Your task to perform on an android device: Go to Android settings Image 0: 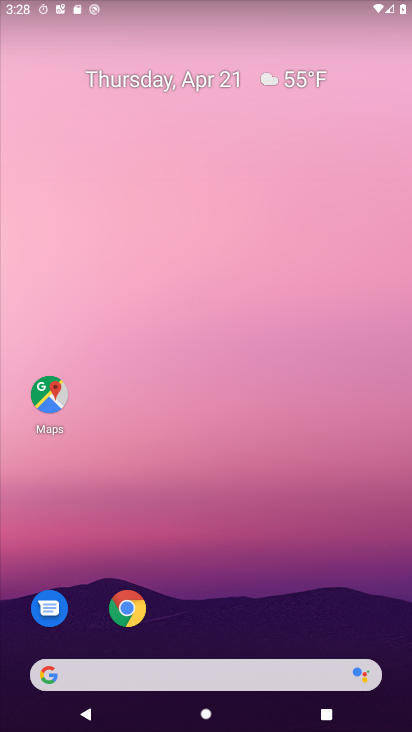
Step 0: drag from (310, 584) to (243, 21)
Your task to perform on an android device: Go to Android settings Image 1: 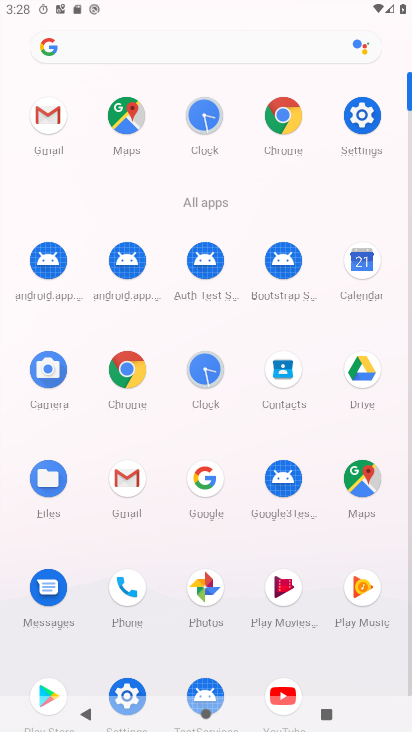
Step 1: click (135, 695)
Your task to perform on an android device: Go to Android settings Image 2: 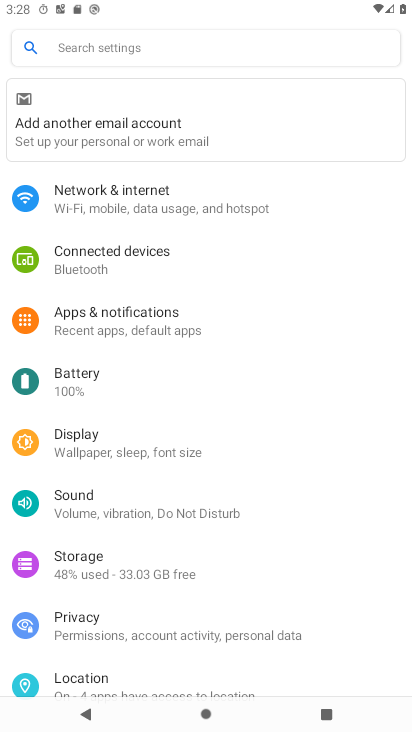
Step 2: drag from (198, 421) to (215, 121)
Your task to perform on an android device: Go to Android settings Image 3: 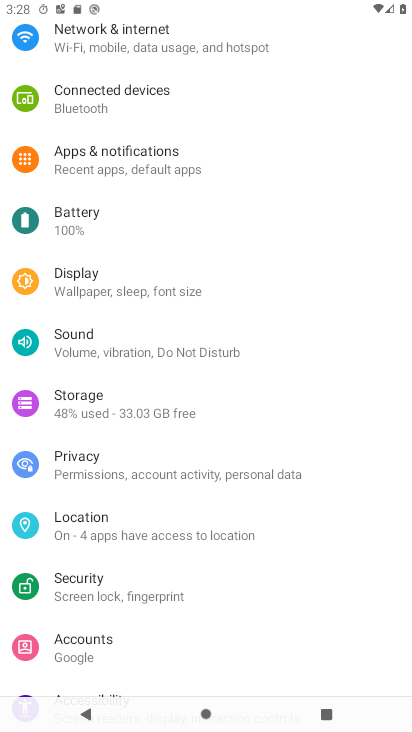
Step 3: drag from (216, 595) to (203, 175)
Your task to perform on an android device: Go to Android settings Image 4: 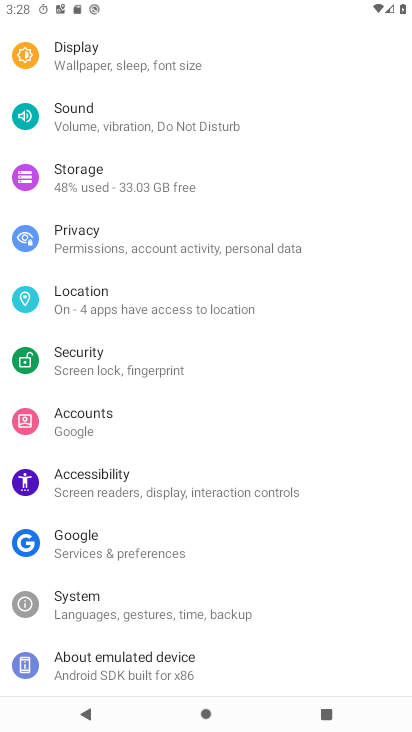
Step 4: click (107, 666)
Your task to perform on an android device: Go to Android settings Image 5: 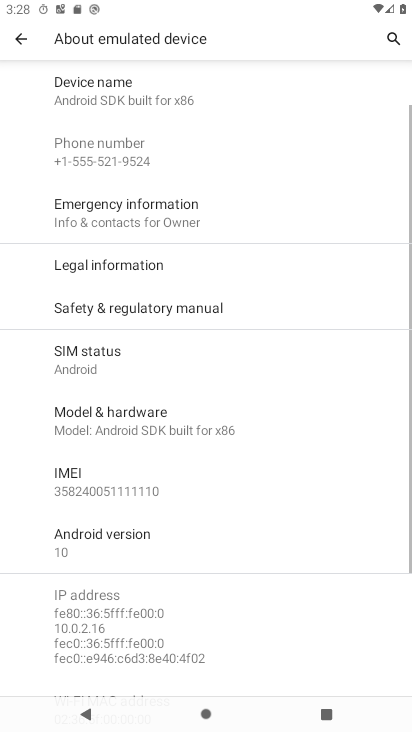
Step 5: click (91, 551)
Your task to perform on an android device: Go to Android settings Image 6: 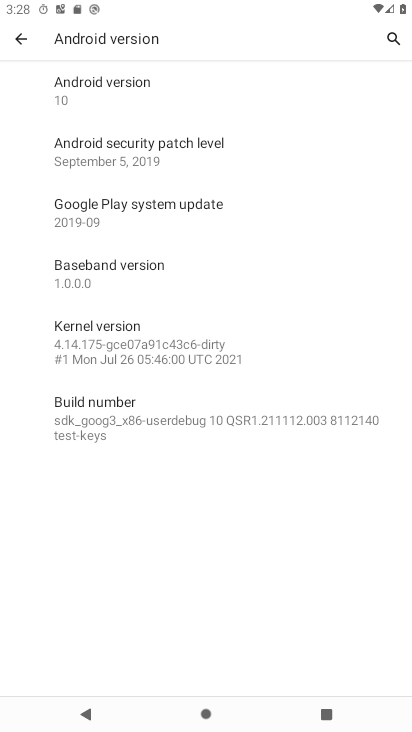
Step 6: task complete